Your task to perform on an android device: delete browsing data in the chrome app Image 0: 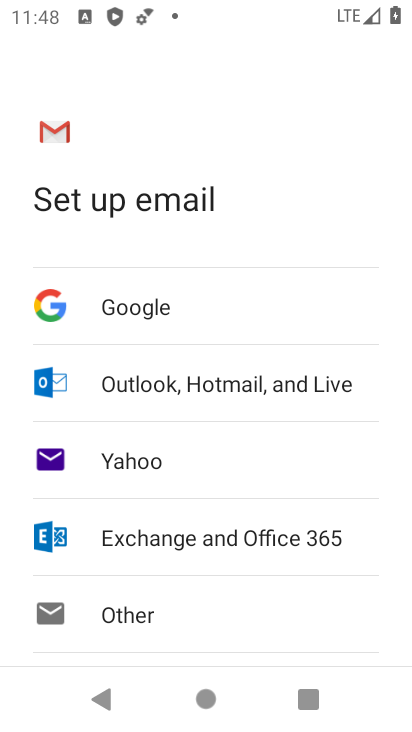
Step 0: press home button
Your task to perform on an android device: delete browsing data in the chrome app Image 1: 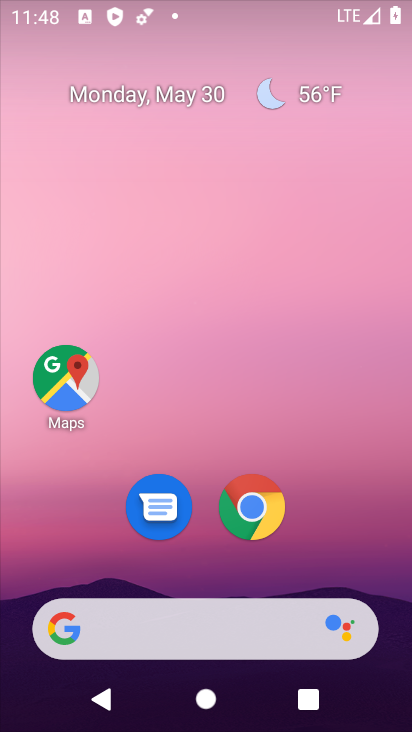
Step 1: drag from (388, 629) to (308, 90)
Your task to perform on an android device: delete browsing data in the chrome app Image 2: 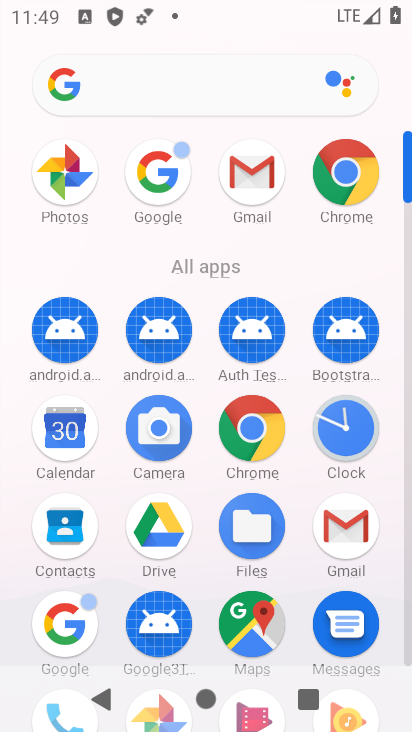
Step 2: click (358, 183)
Your task to perform on an android device: delete browsing data in the chrome app Image 3: 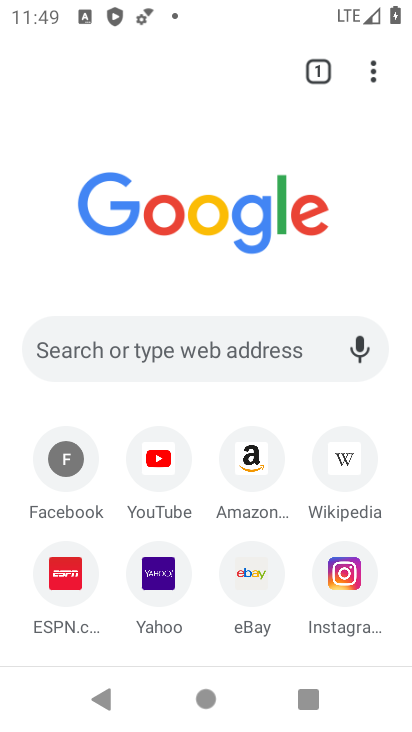
Step 3: click (378, 60)
Your task to perform on an android device: delete browsing data in the chrome app Image 4: 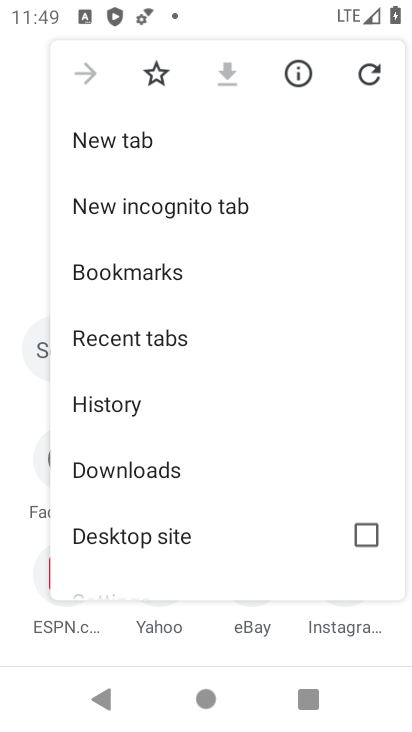
Step 4: click (119, 400)
Your task to perform on an android device: delete browsing data in the chrome app Image 5: 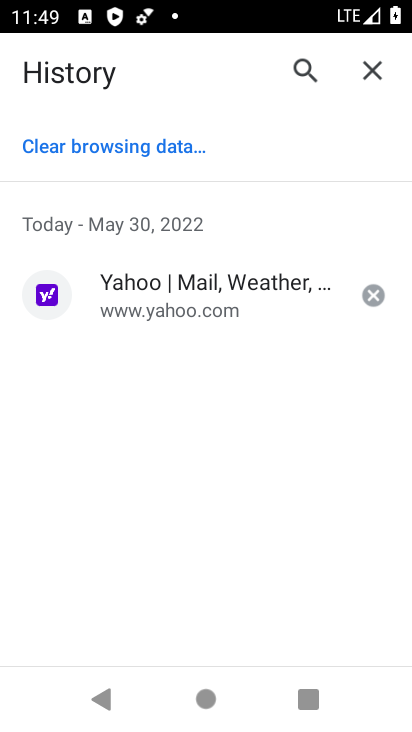
Step 5: click (109, 160)
Your task to perform on an android device: delete browsing data in the chrome app Image 6: 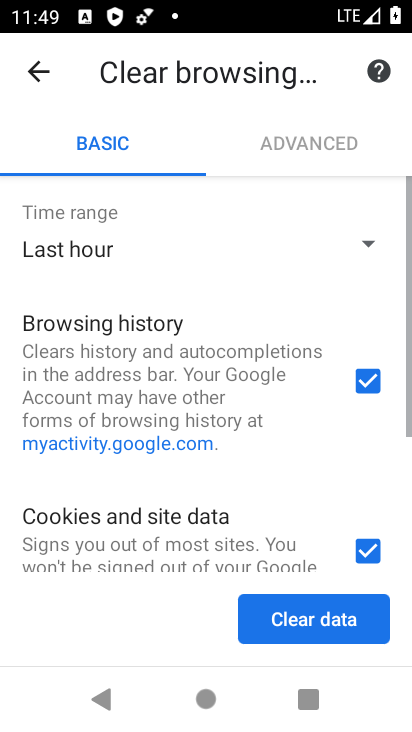
Step 6: click (316, 606)
Your task to perform on an android device: delete browsing data in the chrome app Image 7: 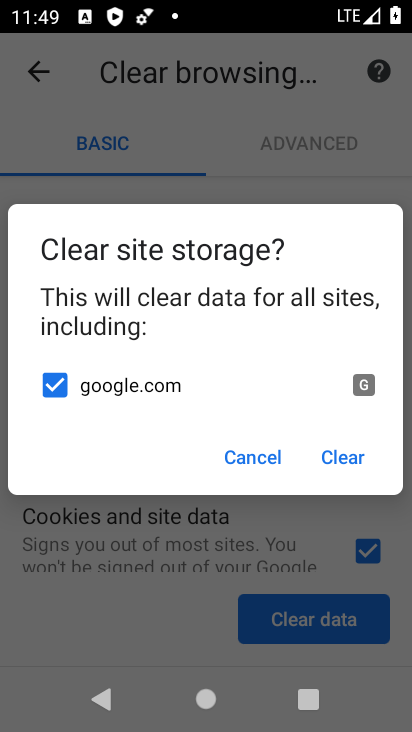
Step 7: click (327, 464)
Your task to perform on an android device: delete browsing data in the chrome app Image 8: 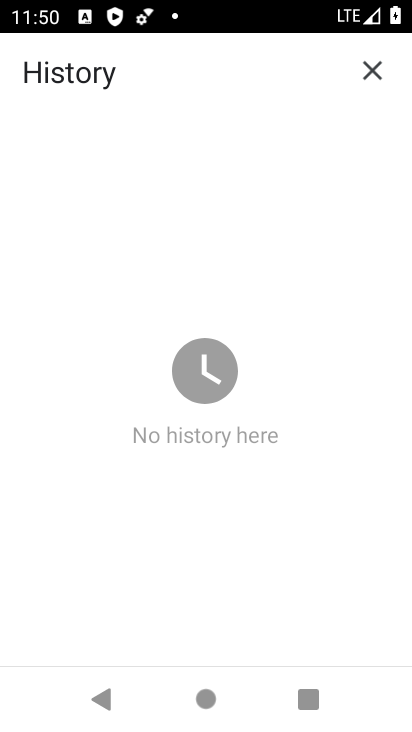
Step 8: task complete